Your task to perform on an android device: allow cookies in the chrome app Image 0: 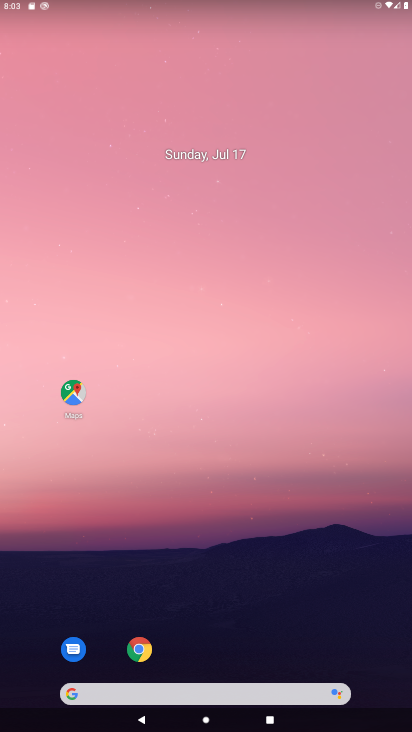
Step 0: click (130, 643)
Your task to perform on an android device: allow cookies in the chrome app Image 1: 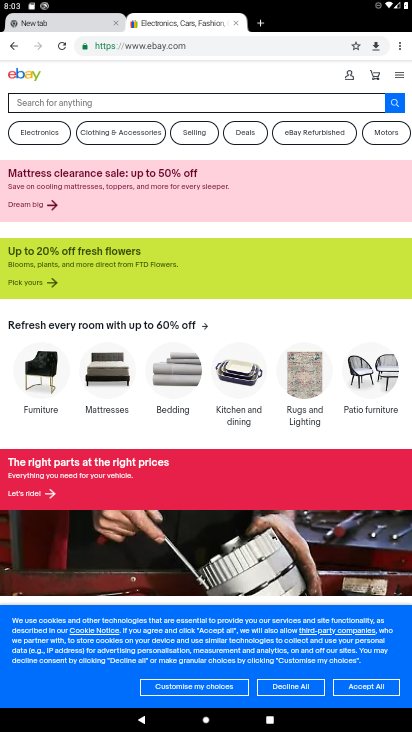
Step 1: drag from (399, 51) to (308, 303)
Your task to perform on an android device: allow cookies in the chrome app Image 2: 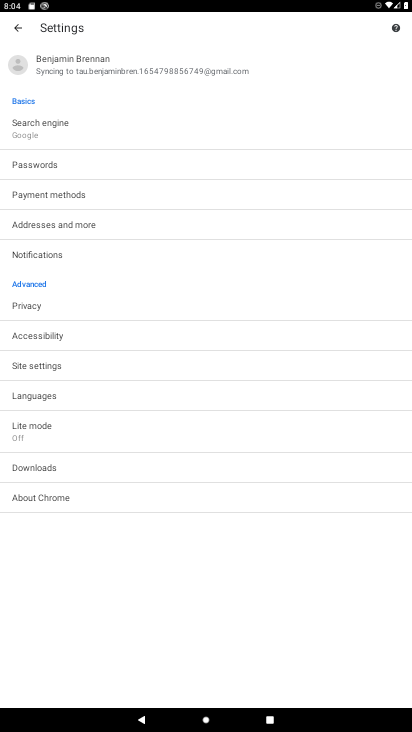
Step 2: click (53, 360)
Your task to perform on an android device: allow cookies in the chrome app Image 3: 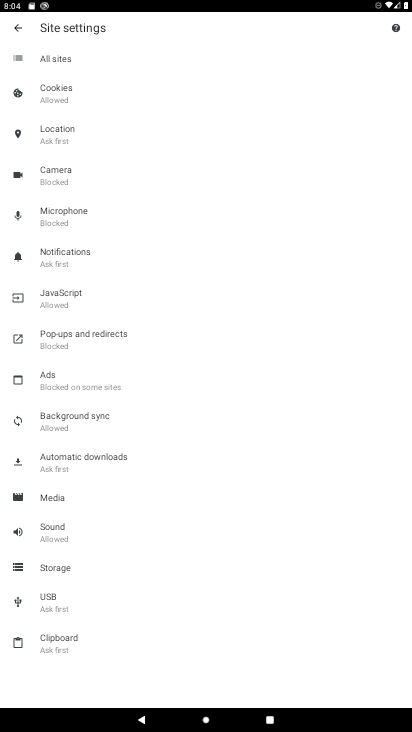
Step 3: click (27, 94)
Your task to perform on an android device: allow cookies in the chrome app Image 4: 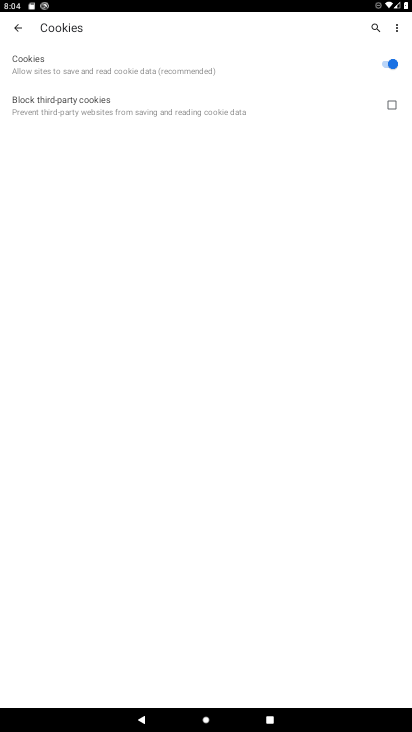
Step 4: task complete